Your task to perform on an android device: See recent photos Image 0: 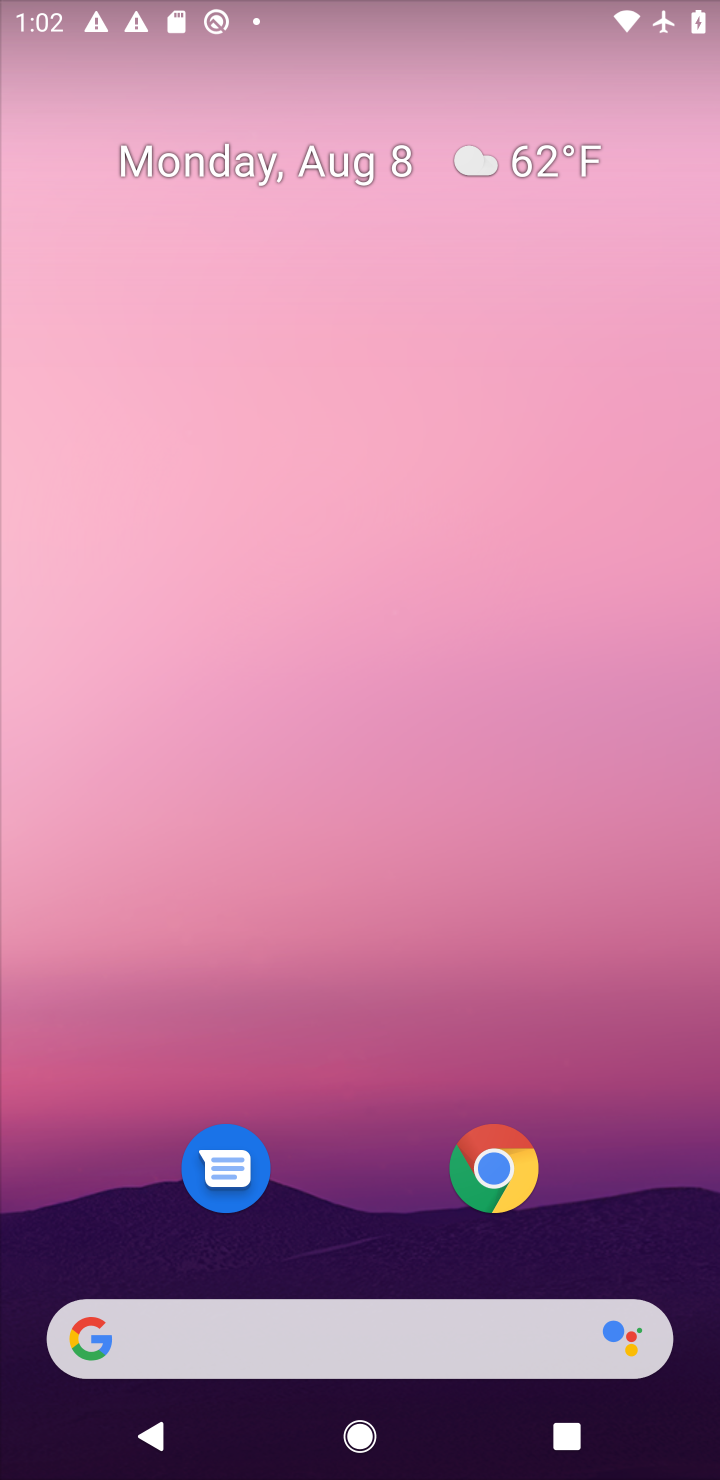
Step 0: drag from (381, 1281) to (324, 44)
Your task to perform on an android device: See recent photos Image 1: 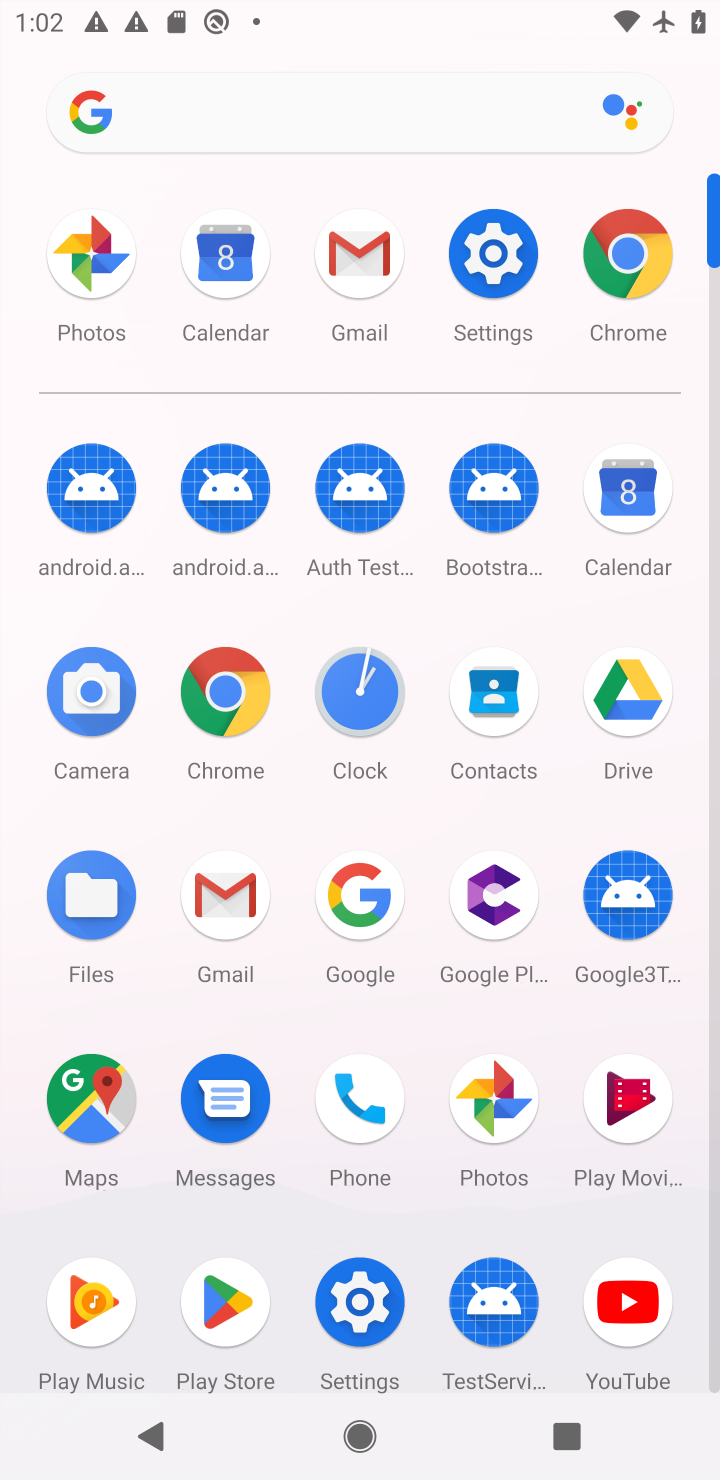
Step 1: click (488, 1112)
Your task to perform on an android device: See recent photos Image 2: 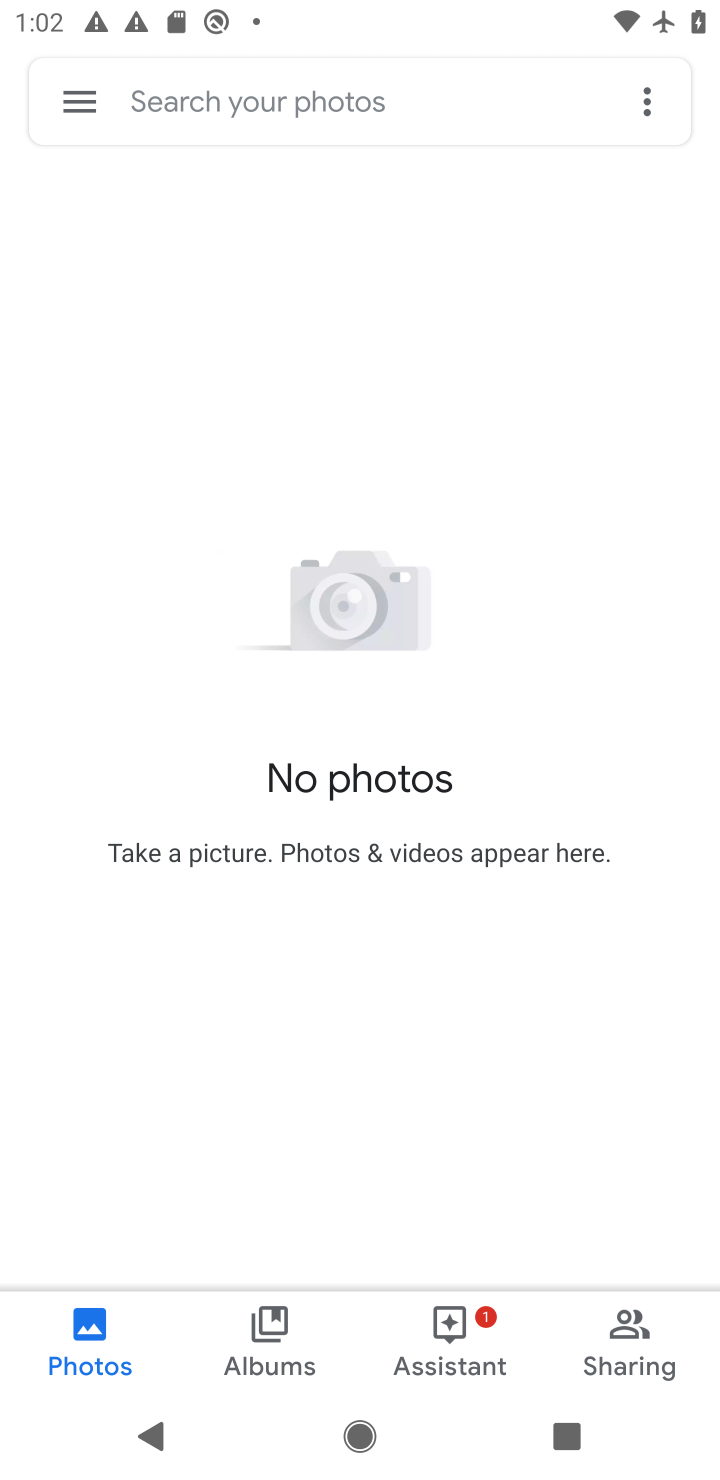
Step 2: task complete